Your task to perform on an android device: Go to wifi settings Image 0: 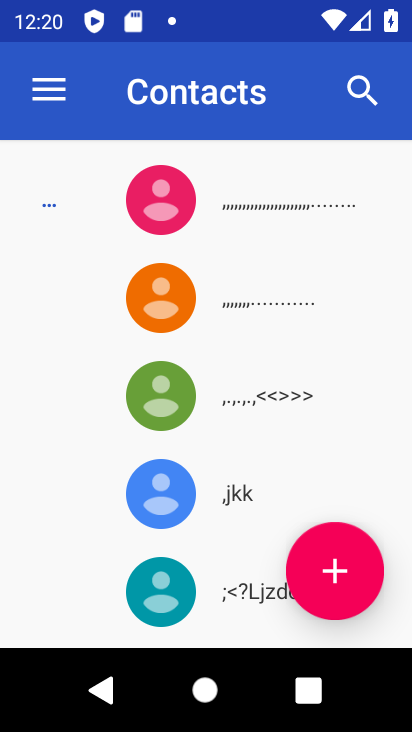
Step 0: press home button
Your task to perform on an android device: Go to wifi settings Image 1: 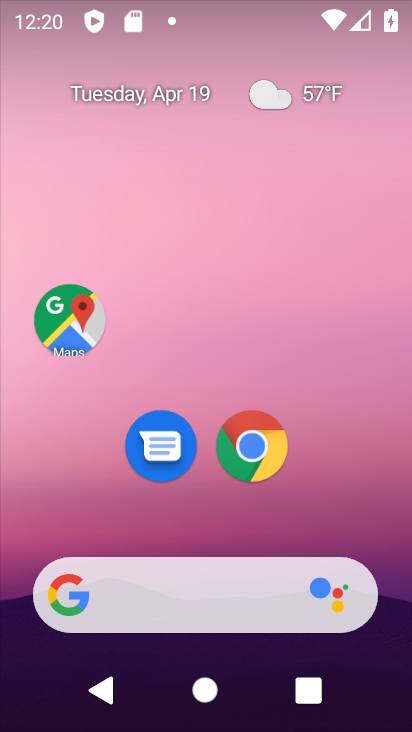
Step 1: drag from (327, 514) to (339, 74)
Your task to perform on an android device: Go to wifi settings Image 2: 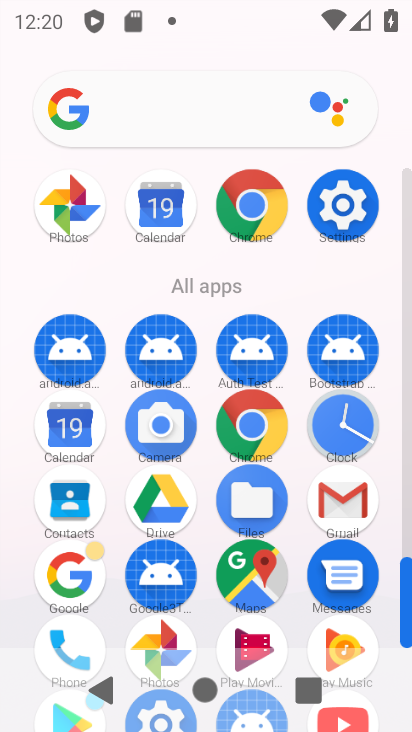
Step 2: click (344, 209)
Your task to perform on an android device: Go to wifi settings Image 3: 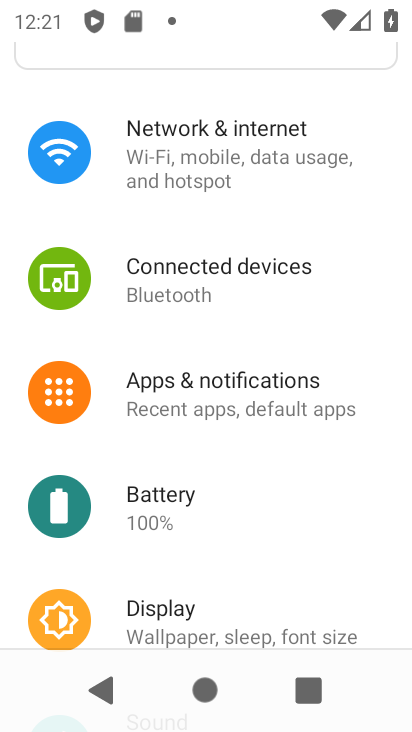
Step 3: click (277, 146)
Your task to perform on an android device: Go to wifi settings Image 4: 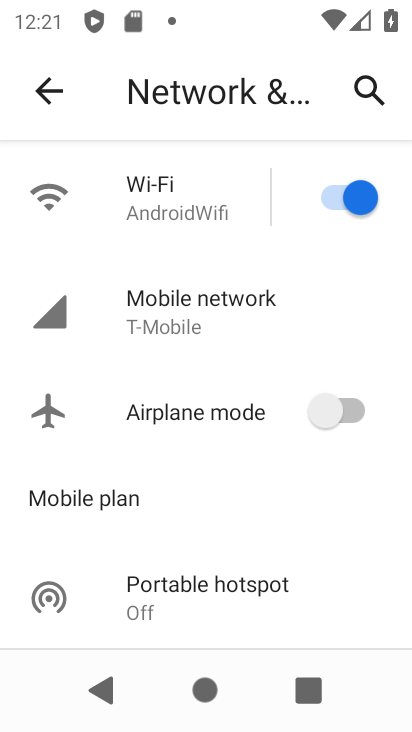
Step 4: click (210, 192)
Your task to perform on an android device: Go to wifi settings Image 5: 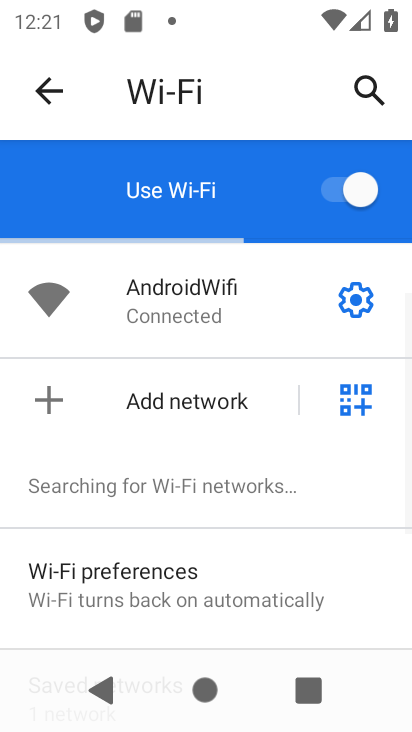
Step 5: task complete